Your task to perform on an android device: delete the emails in spam in the gmail app Image 0: 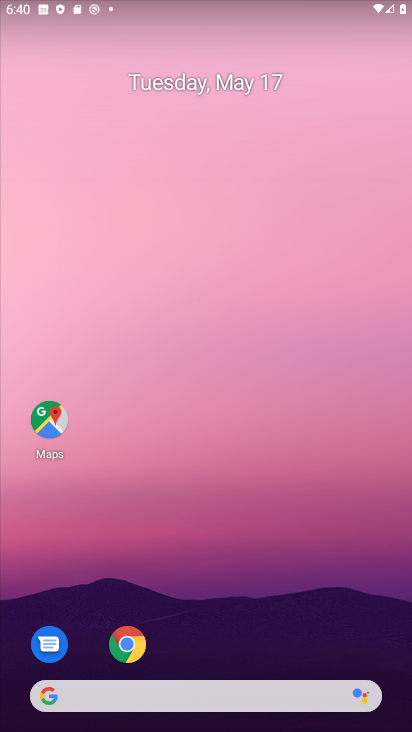
Step 0: drag from (366, 640) to (336, 100)
Your task to perform on an android device: delete the emails in spam in the gmail app Image 1: 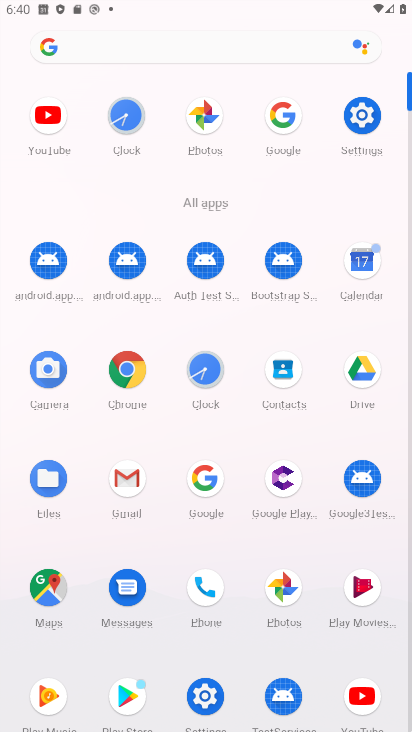
Step 1: click (122, 490)
Your task to perform on an android device: delete the emails in spam in the gmail app Image 2: 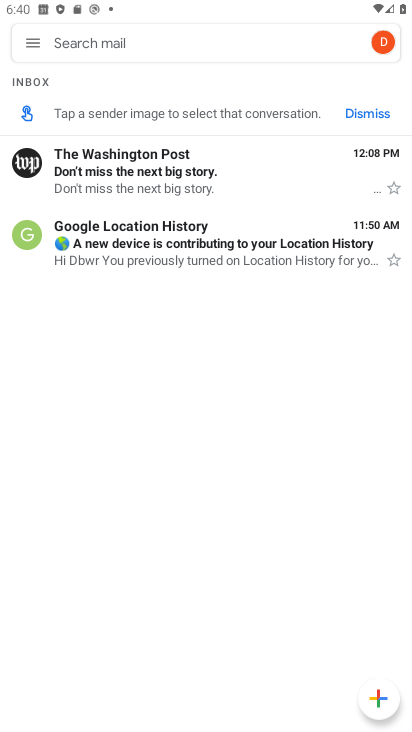
Step 2: click (23, 40)
Your task to perform on an android device: delete the emails in spam in the gmail app Image 3: 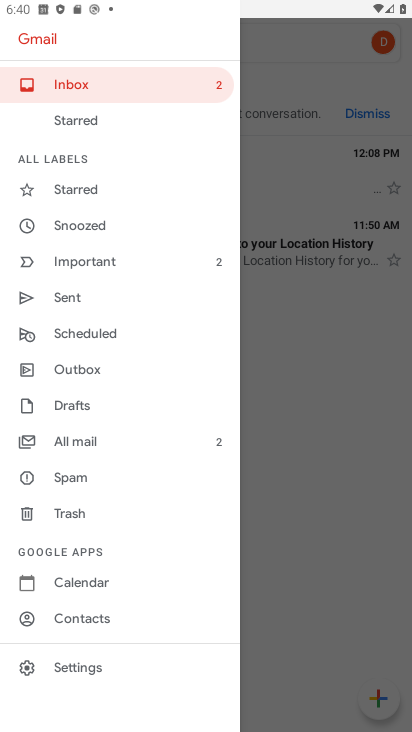
Step 3: click (55, 483)
Your task to perform on an android device: delete the emails in spam in the gmail app Image 4: 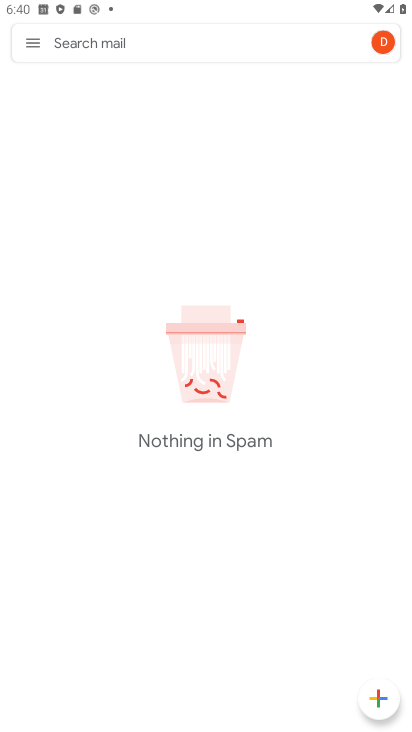
Step 4: task complete